Your task to perform on an android device: Open Youtube and go to the subscriptions tab Image 0: 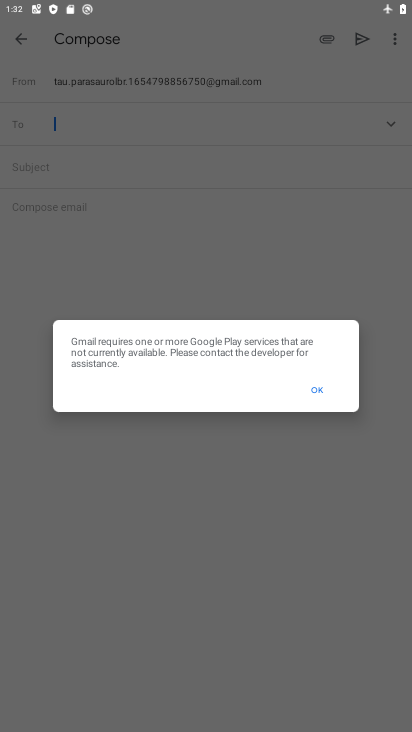
Step 0: press back button
Your task to perform on an android device: Open Youtube and go to the subscriptions tab Image 1: 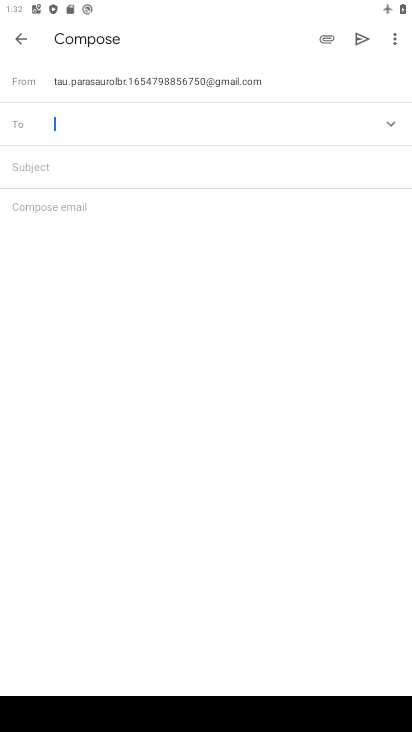
Step 1: press home button
Your task to perform on an android device: Open Youtube and go to the subscriptions tab Image 2: 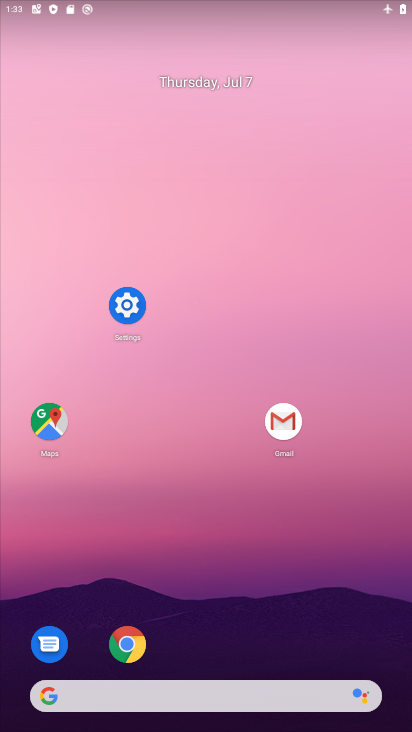
Step 2: click (131, 632)
Your task to perform on an android device: Open Youtube and go to the subscriptions tab Image 3: 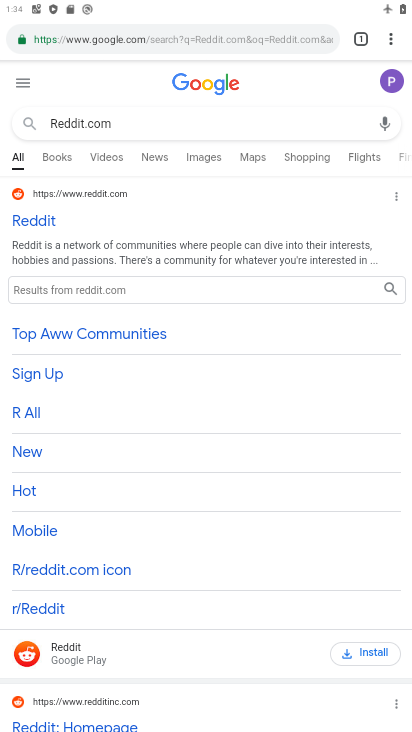
Step 3: press home button
Your task to perform on an android device: Open Youtube and go to the subscriptions tab Image 4: 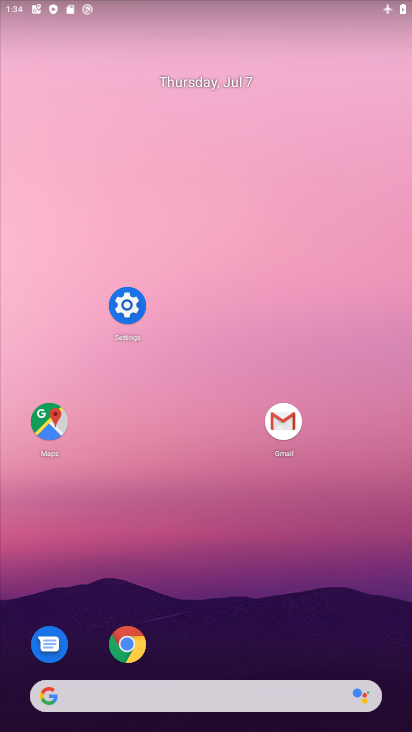
Step 4: drag from (404, 705) to (357, 70)
Your task to perform on an android device: Open Youtube and go to the subscriptions tab Image 5: 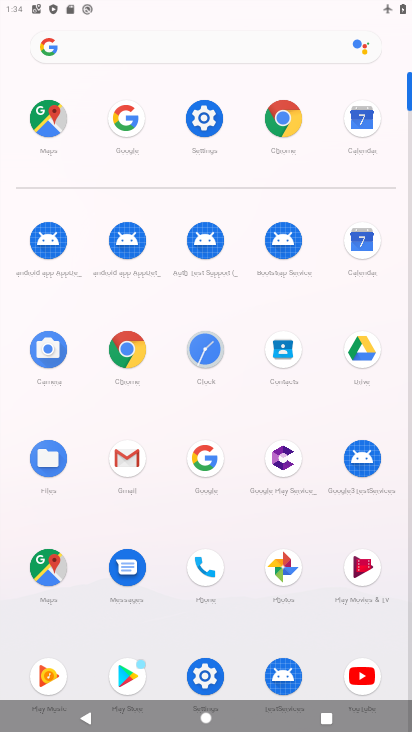
Step 5: click (349, 671)
Your task to perform on an android device: Open Youtube and go to the subscriptions tab Image 6: 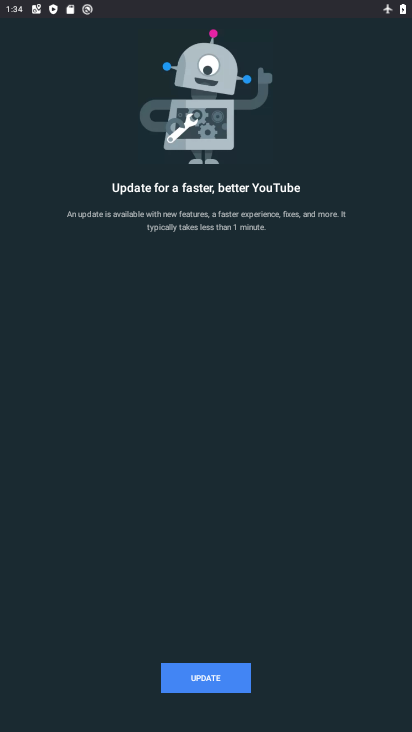
Step 6: click (224, 677)
Your task to perform on an android device: Open Youtube and go to the subscriptions tab Image 7: 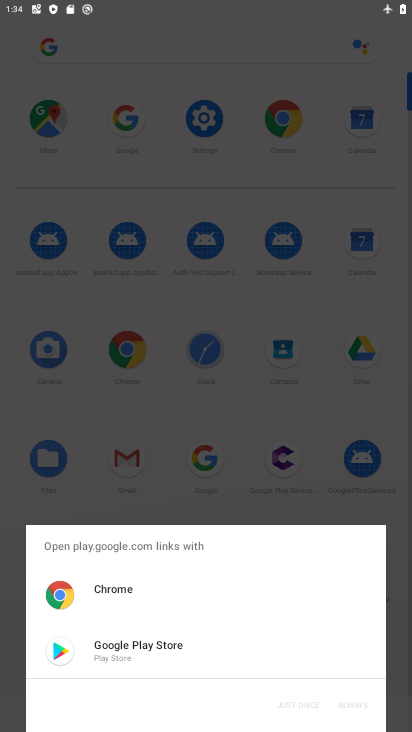
Step 7: click (138, 640)
Your task to perform on an android device: Open Youtube and go to the subscriptions tab Image 8: 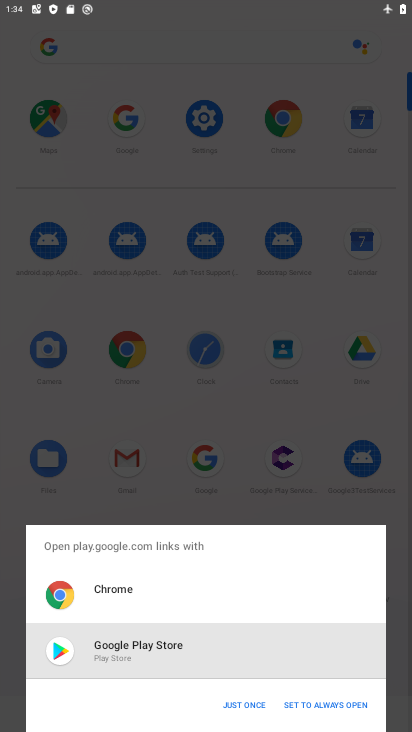
Step 8: click (236, 703)
Your task to perform on an android device: Open Youtube and go to the subscriptions tab Image 9: 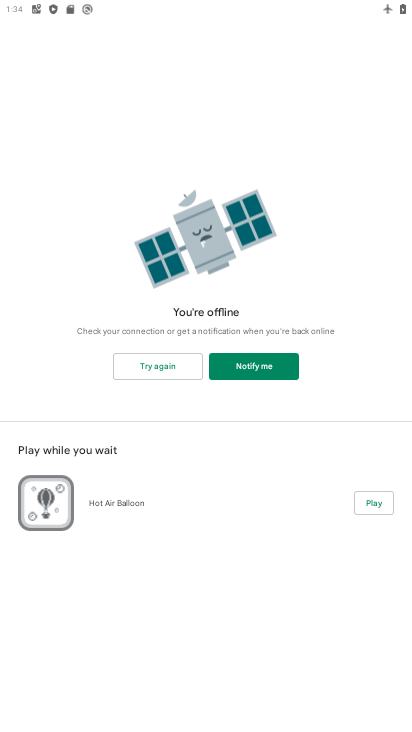
Step 9: task complete